Your task to perform on an android device: Open the calendar app, open the side menu, and click the "Day" option Image 0: 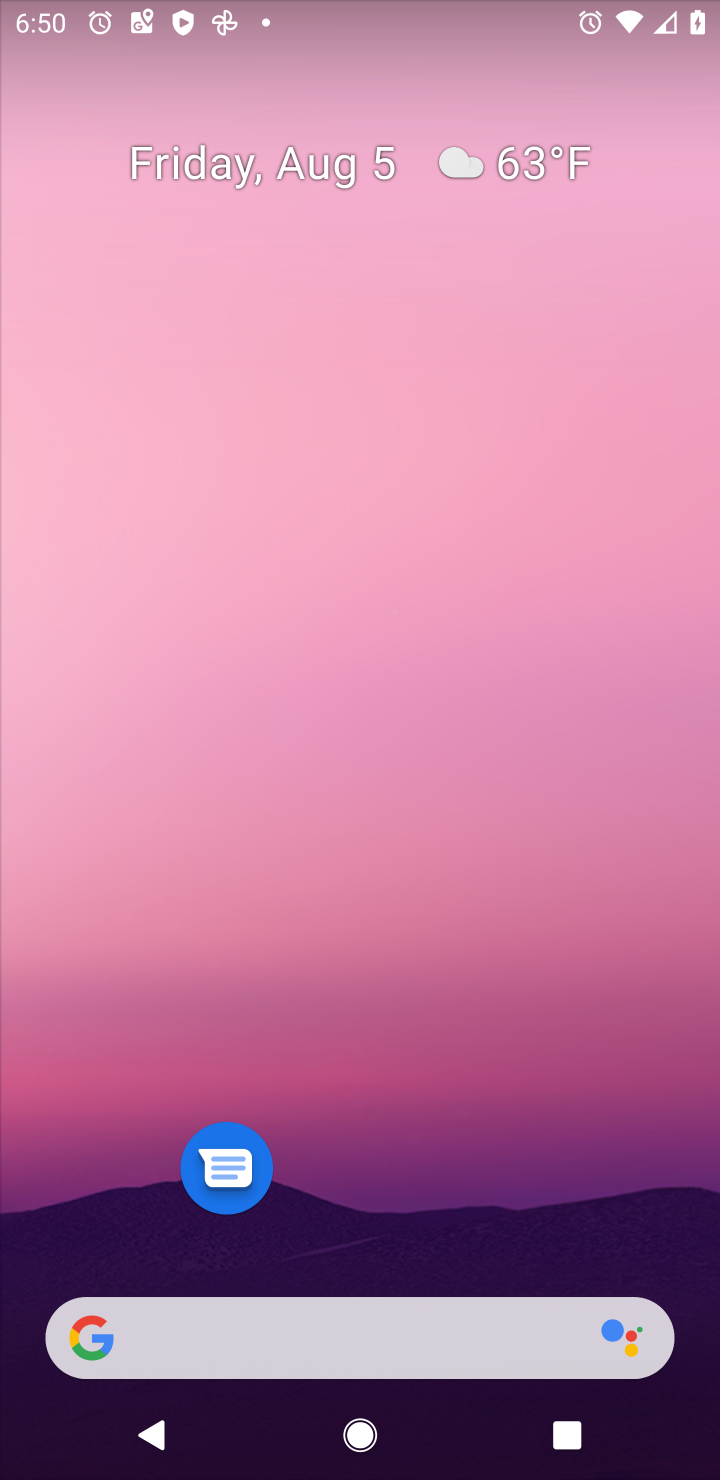
Step 0: press home button
Your task to perform on an android device: Open the calendar app, open the side menu, and click the "Day" option Image 1: 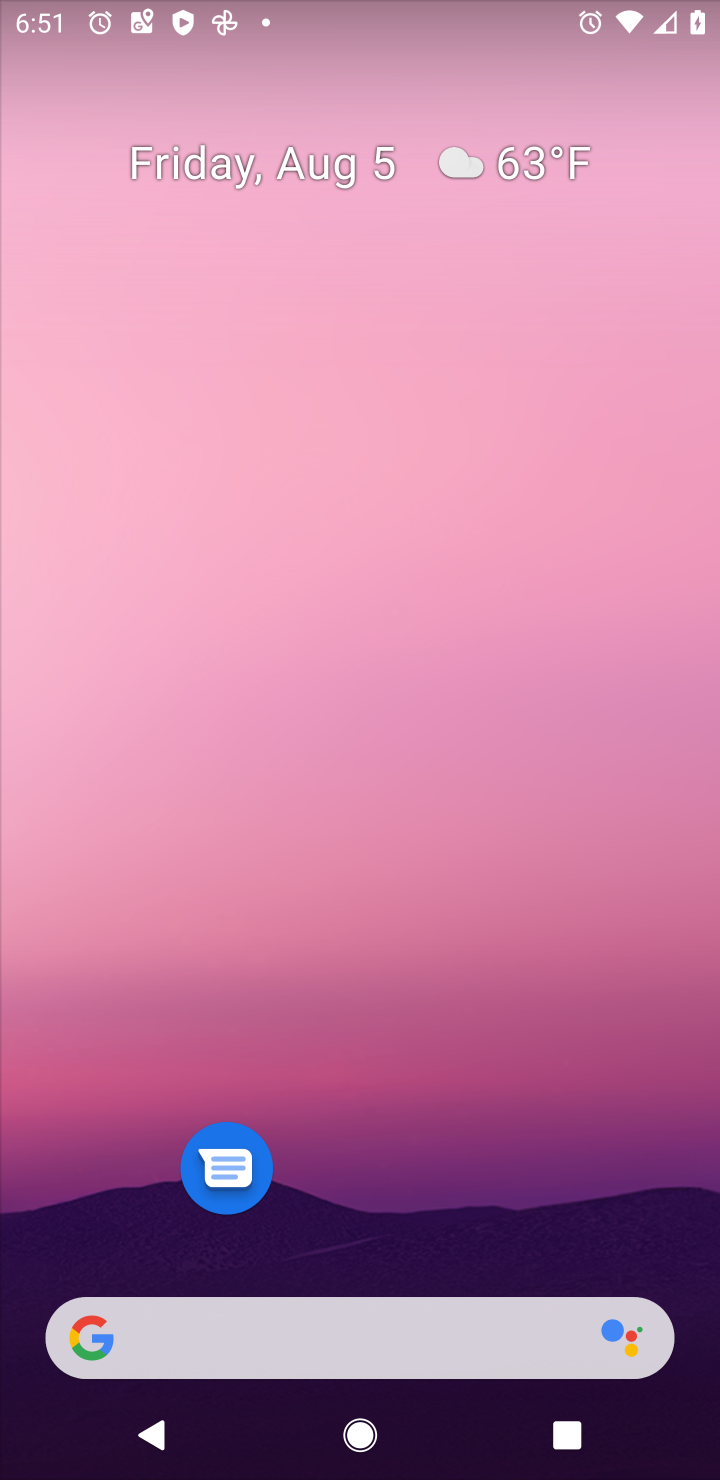
Step 1: drag from (428, 1204) to (466, 77)
Your task to perform on an android device: Open the calendar app, open the side menu, and click the "Day" option Image 2: 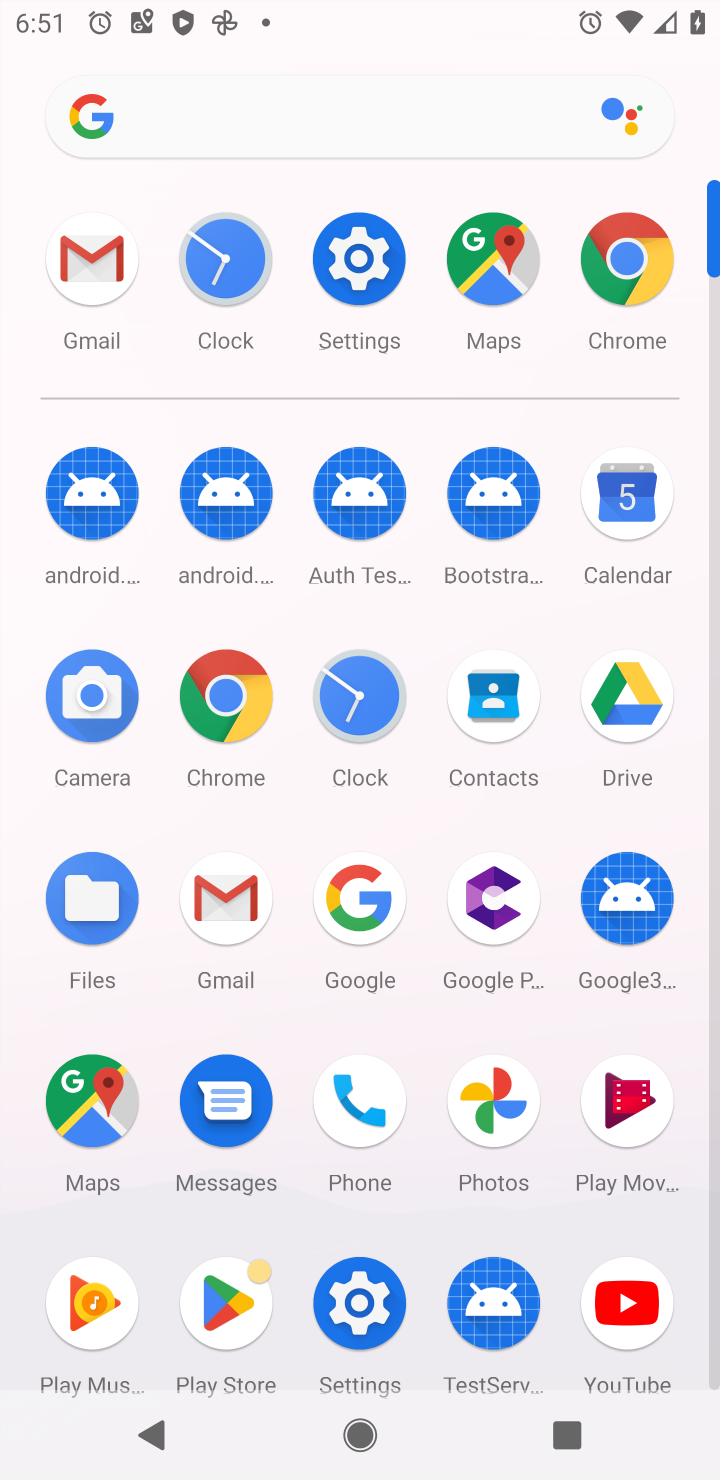
Step 2: click (608, 516)
Your task to perform on an android device: Open the calendar app, open the side menu, and click the "Day" option Image 3: 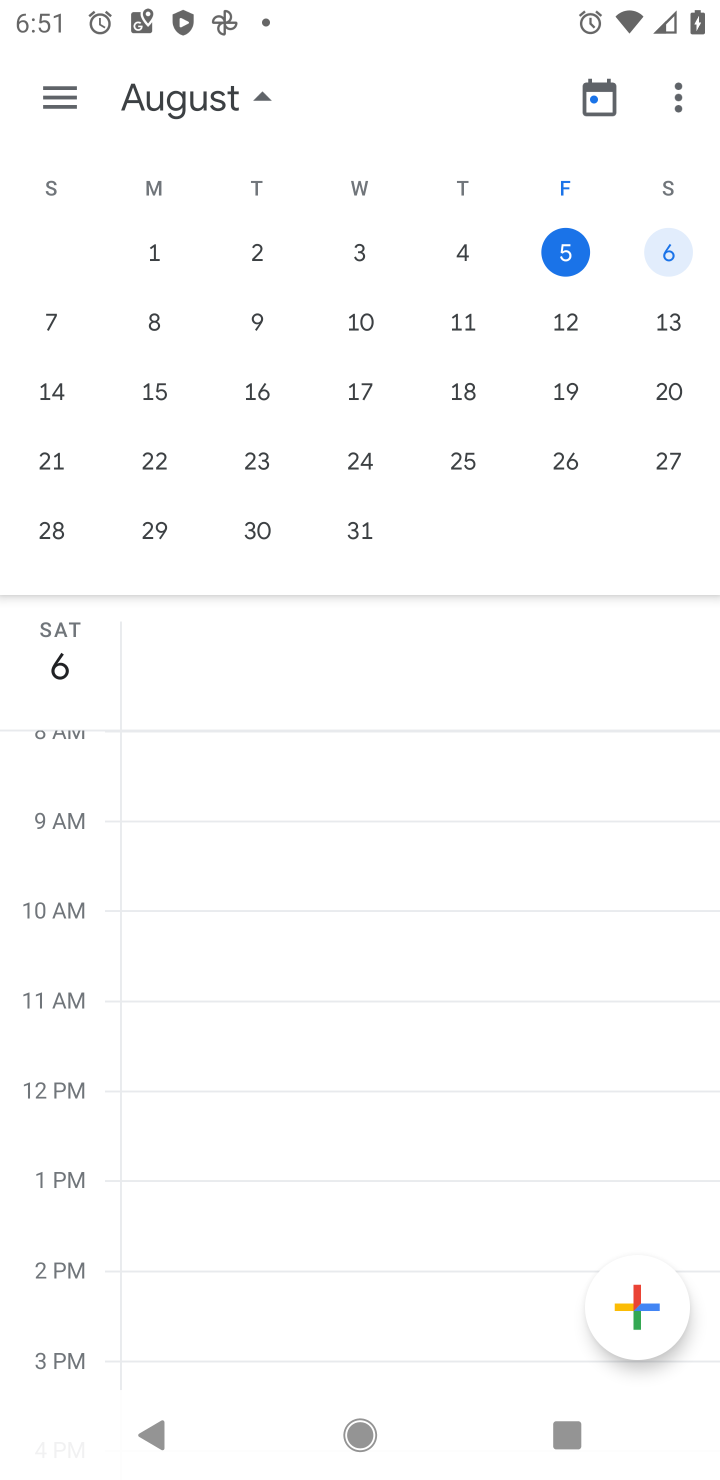
Step 3: click (59, 83)
Your task to perform on an android device: Open the calendar app, open the side menu, and click the "Day" option Image 4: 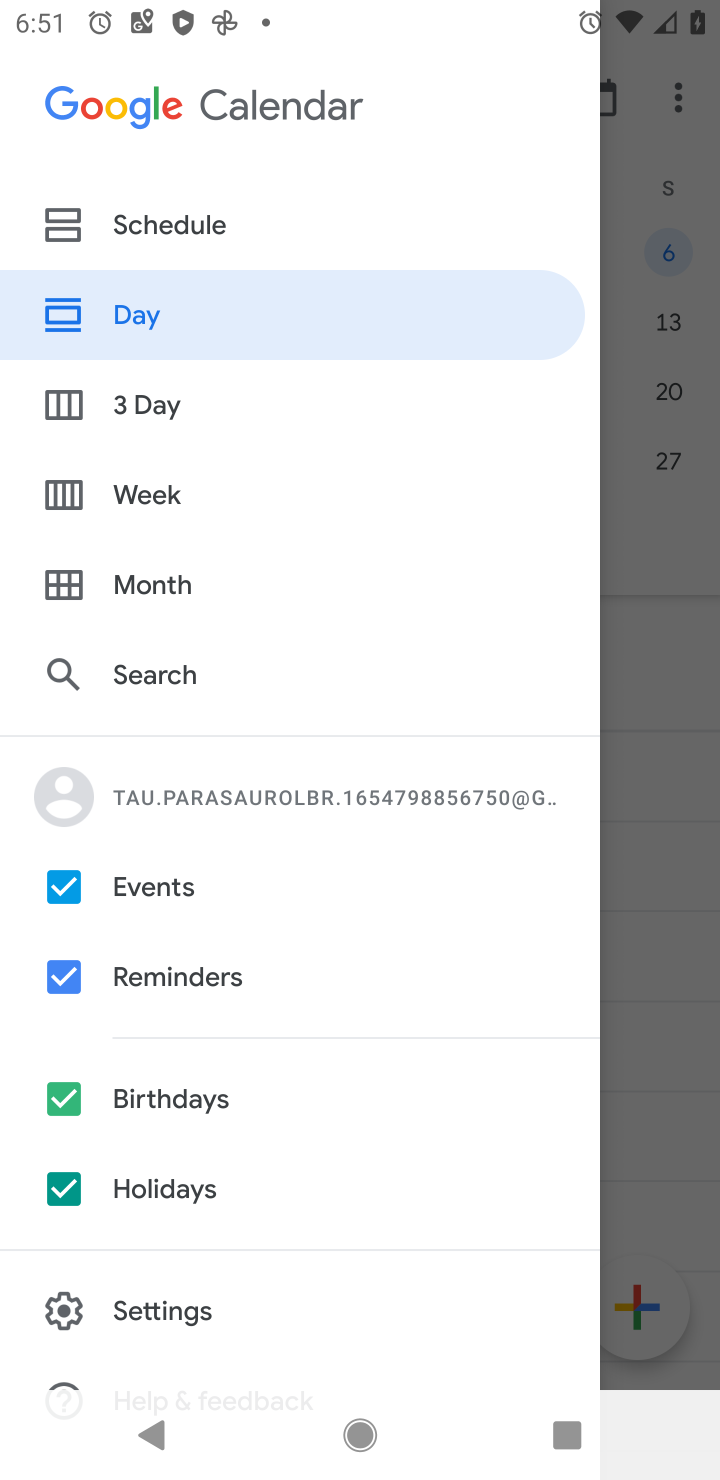
Step 4: click (141, 314)
Your task to perform on an android device: Open the calendar app, open the side menu, and click the "Day" option Image 5: 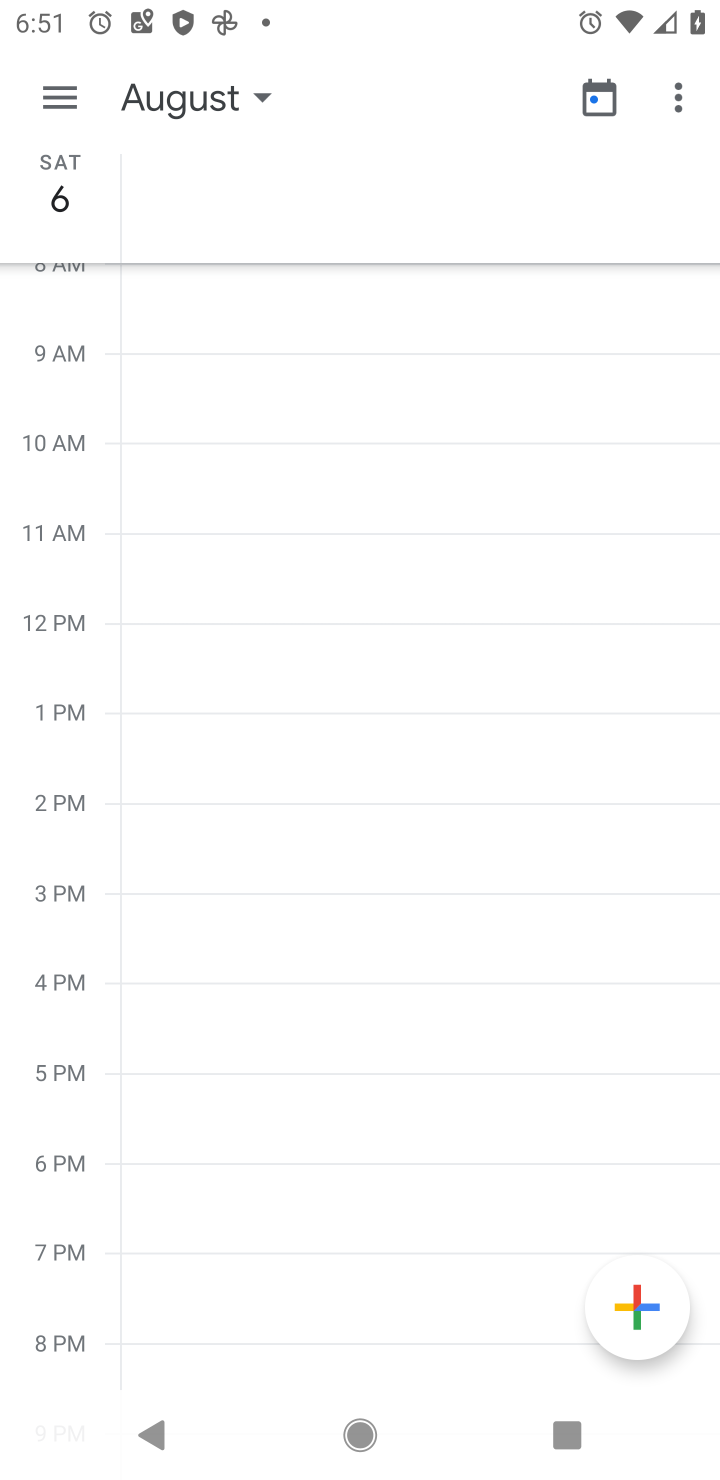
Step 5: task complete